Your task to perform on an android device: turn on the 12-hour format for clock Image 0: 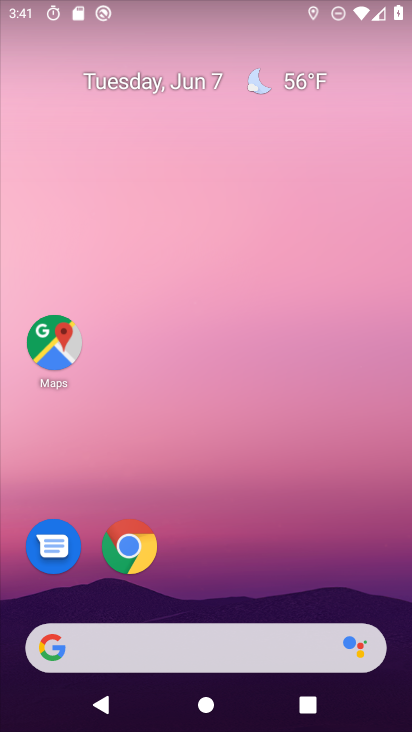
Step 0: drag from (309, 527) to (256, 72)
Your task to perform on an android device: turn on the 12-hour format for clock Image 1: 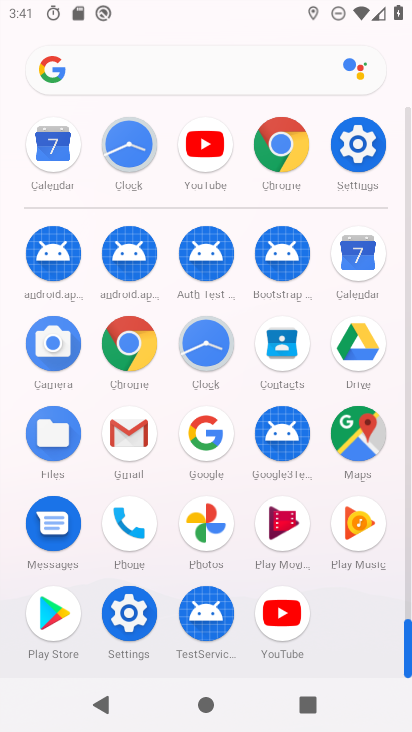
Step 1: click (206, 343)
Your task to perform on an android device: turn on the 12-hour format for clock Image 2: 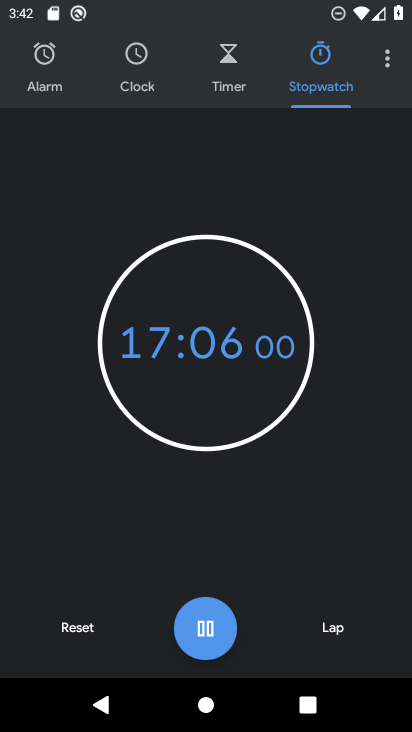
Step 2: drag from (391, 60) to (258, 107)
Your task to perform on an android device: turn on the 12-hour format for clock Image 3: 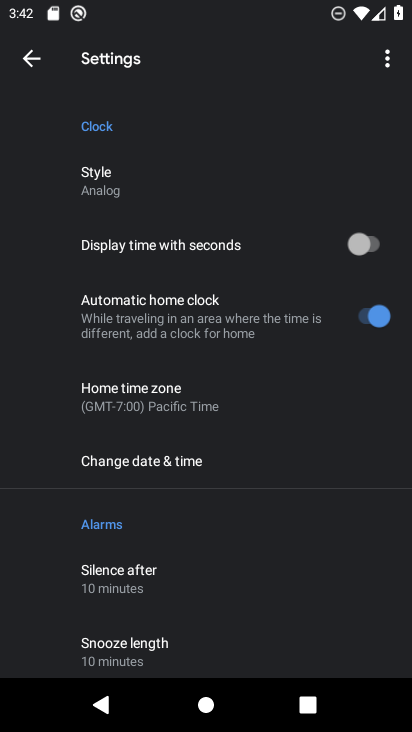
Step 3: drag from (217, 615) to (249, 174)
Your task to perform on an android device: turn on the 12-hour format for clock Image 4: 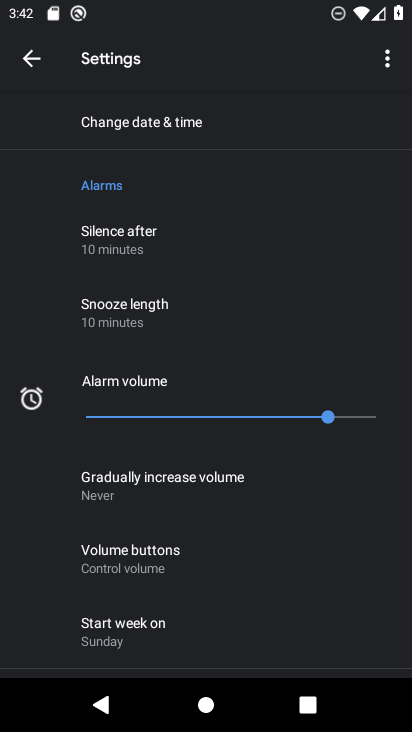
Step 4: drag from (278, 552) to (279, 159)
Your task to perform on an android device: turn on the 12-hour format for clock Image 5: 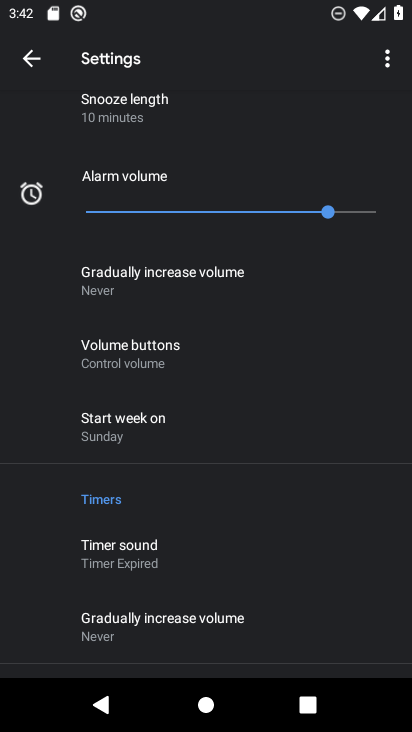
Step 5: drag from (192, 527) to (245, 139)
Your task to perform on an android device: turn on the 12-hour format for clock Image 6: 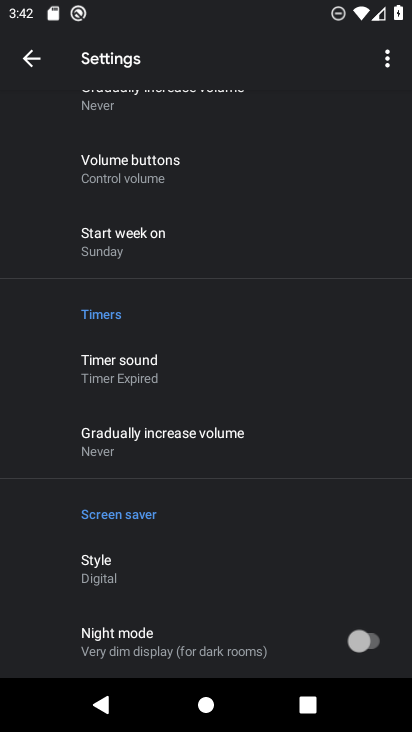
Step 6: drag from (194, 520) to (237, 108)
Your task to perform on an android device: turn on the 12-hour format for clock Image 7: 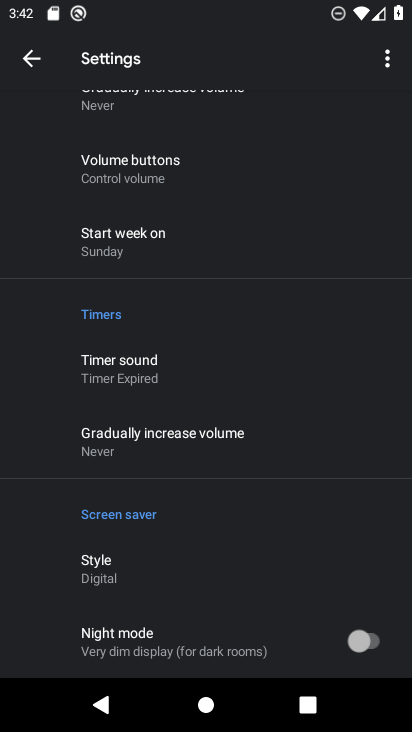
Step 7: drag from (219, 233) to (206, 547)
Your task to perform on an android device: turn on the 12-hour format for clock Image 8: 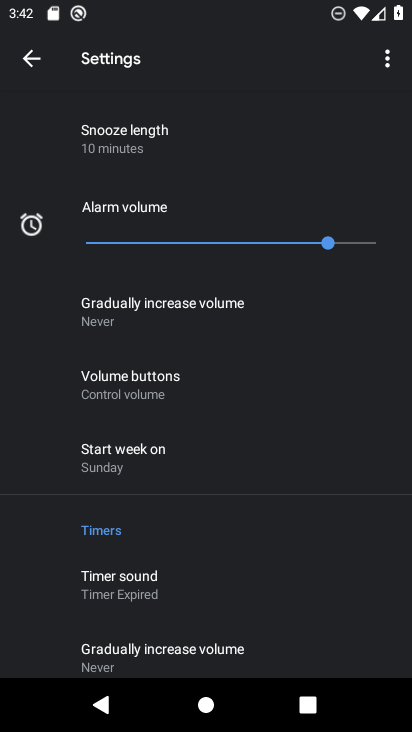
Step 8: drag from (254, 308) to (219, 634)
Your task to perform on an android device: turn on the 12-hour format for clock Image 9: 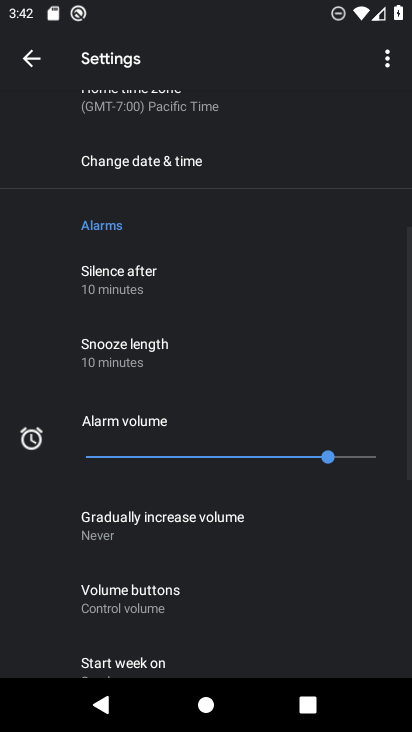
Step 9: drag from (241, 257) to (208, 497)
Your task to perform on an android device: turn on the 12-hour format for clock Image 10: 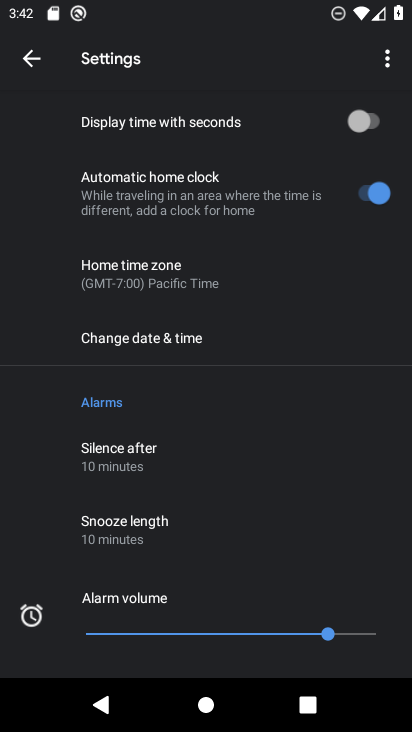
Step 10: click (197, 350)
Your task to perform on an android device: turn on the 12-hour format for clock Image 11: 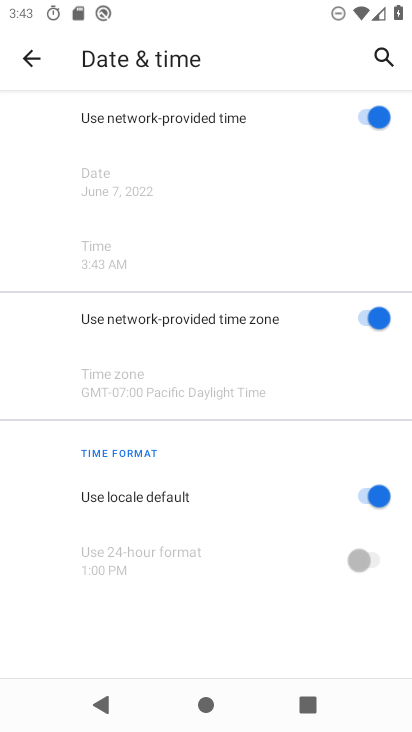
Step 11: task complete